Your task to perform on an android device: empty trash in the gmail app Image 0: 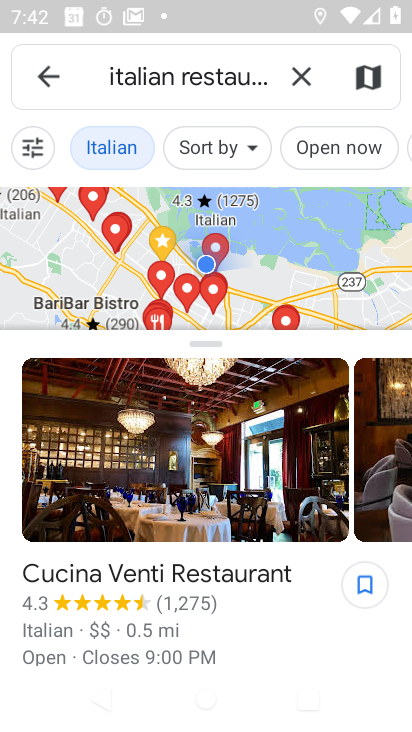
Step 0: press home button
Your task to perform on an android device: empty trash in the gmail app Image 1: 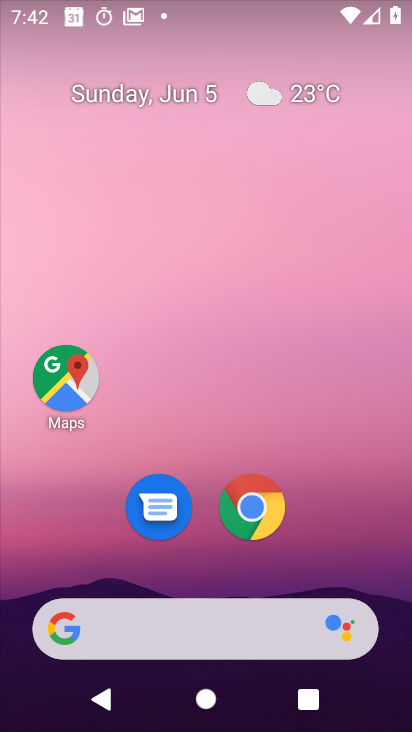
Step 1: drag from (244, 655) to (102, 7)
Your task to perform on an android device: empty trash in the gmail app Image 2: 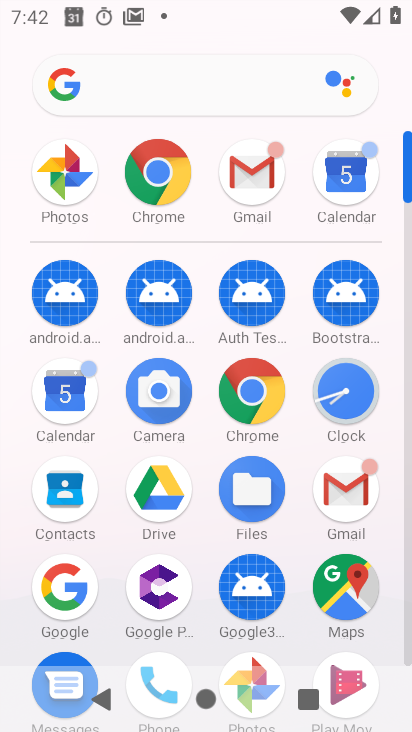
Step 2: click (346, 509)
Your task to perform on an android device: empty trash in the gmail app Image 3: 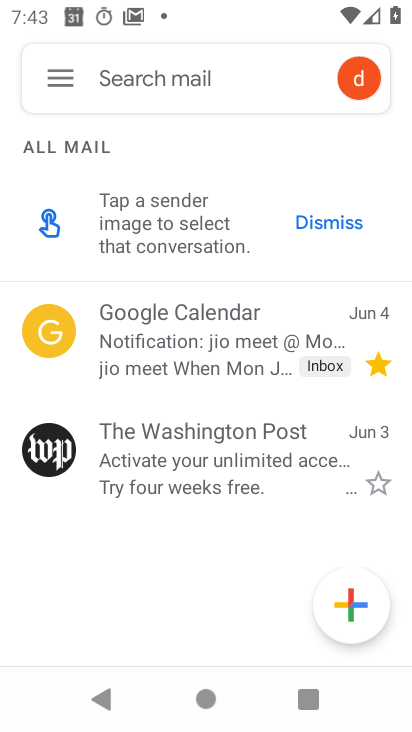
Step 3: click (43, 70)
Your task to perform on an android device: empty trash in the gmail app Image 4: 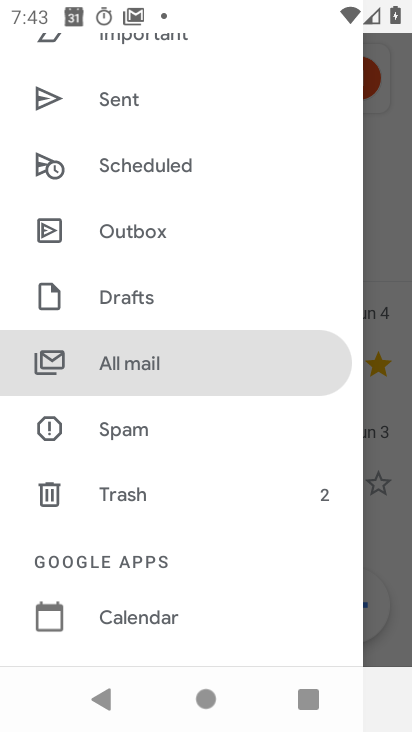
Step 4: click (119, 486)
Your task to perform on an android device: empty trash in the gmail app Image 5: 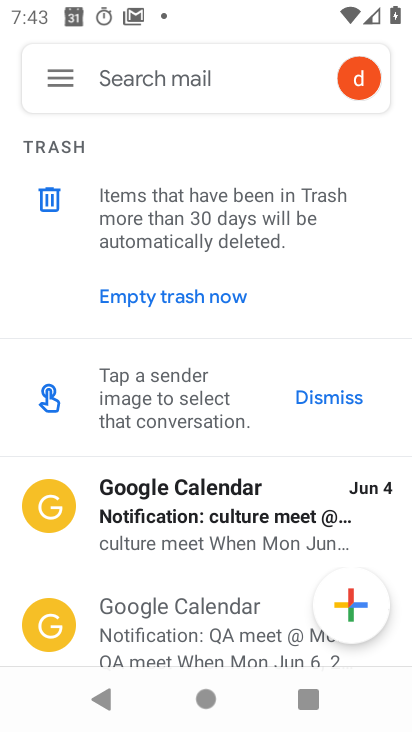
Step 5: click (177, 287)
Your task to perform on an android device: empty trash in the gmail app Image 6: 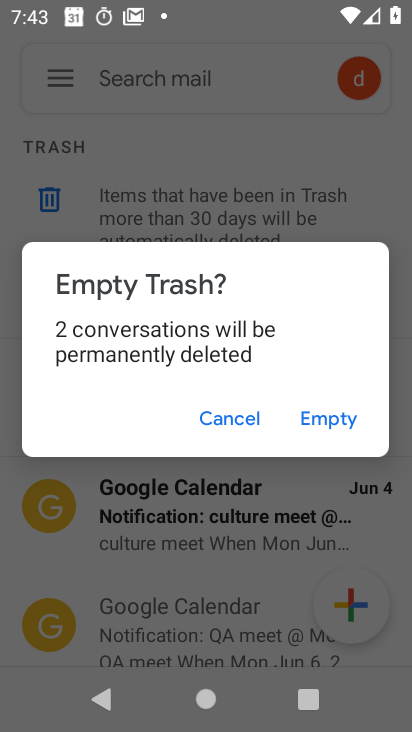
Step 6: task complete